Your task to perform on an android device: delete a single message in the gmail app Image 0: 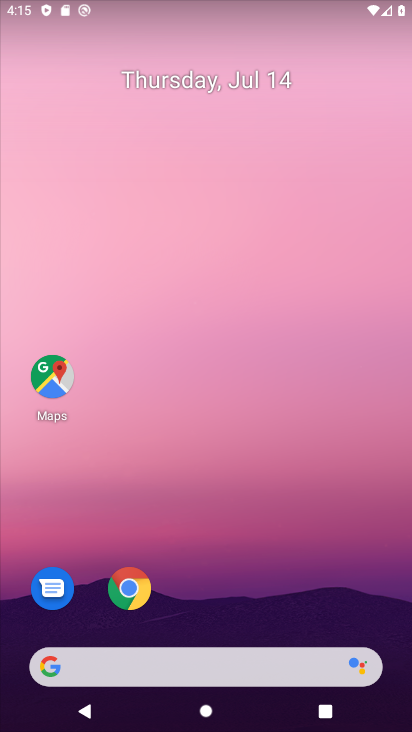
Step 0: drag from (118, 441) to (165, 286)
Your task to perform on an android device: delete a single message in the gmail app Image 1: 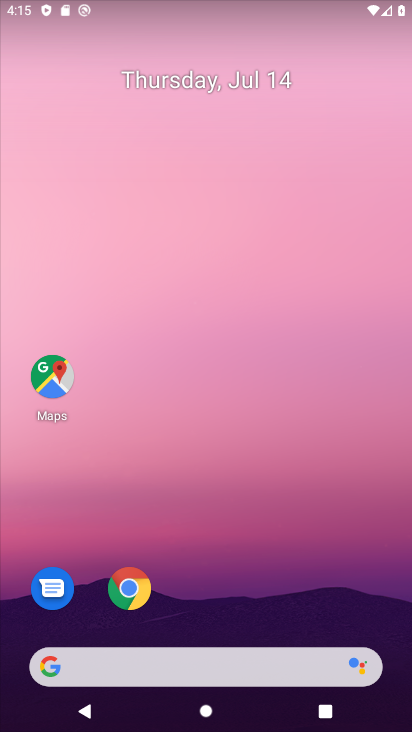
Step 1: click (262, 127)
Your task to perform on an android device: delete a single message in the gmail app Image 2: 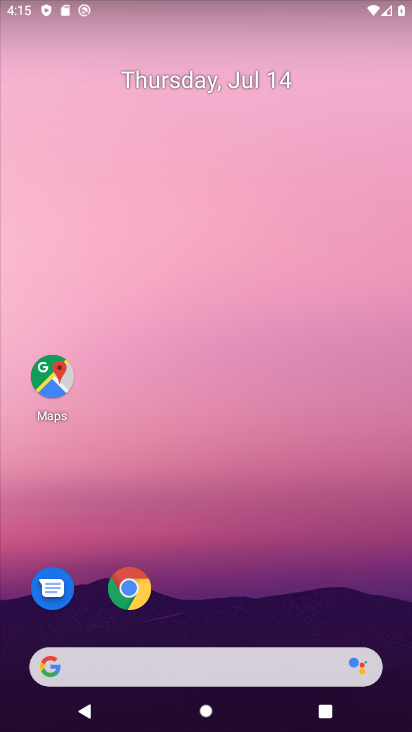
Step 2: click (216, 136)
Your task to perform on an android device: delete a single message in the gmail app Image 3: 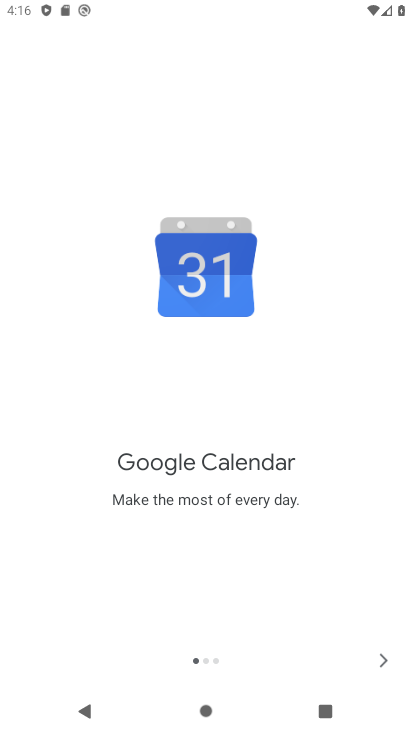
Step 3: click (380, 664)
Your task to perform on an android device: delete a single message in the gmail app Image 4: 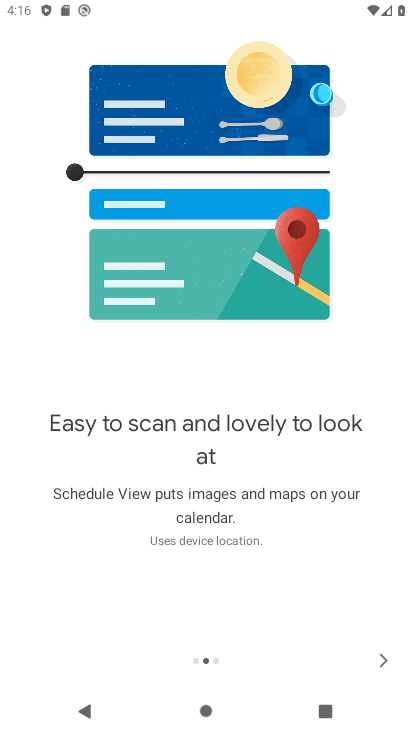
Step 4: click (385, 658)
Your task to perform on an android device: delete a single message in the gmail app Image 5: 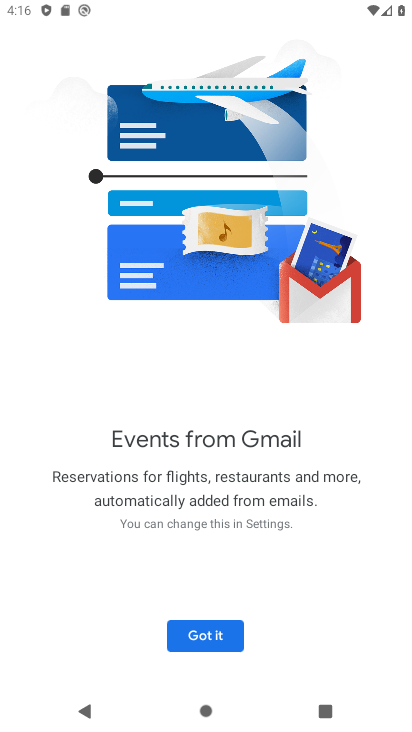
Step 5: click (220, 632)
Your task to perform on an android device: delete a single message in the gmail app Image 6: 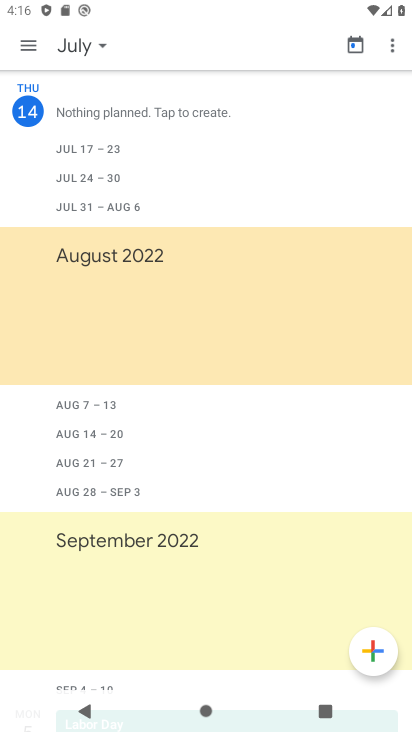
Step 6: press home button
Your task to perform on an android device: delete a single message in the gmail app Image 7: 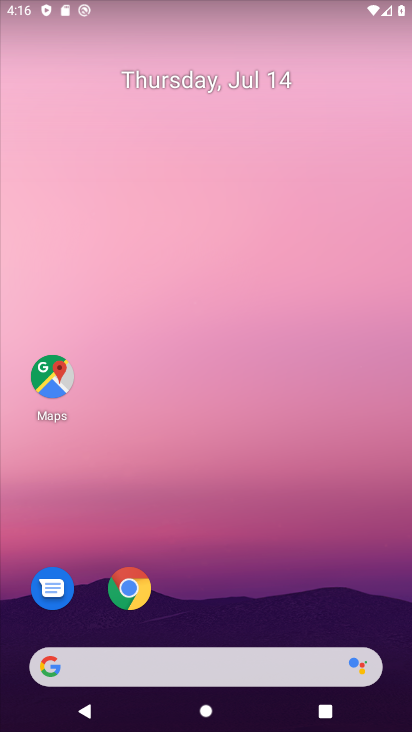
Step 7: drag from (17, 697) to (214, 132)
Your task to perform on an android device: delete a single message in the gmail app Image 8: 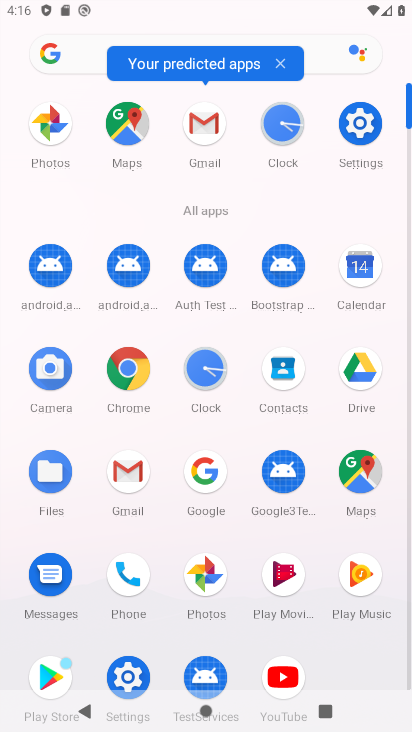
Step 8: click (134, 493)
Your task to perform on an android device: delete a single message in the gmail app Image 9: 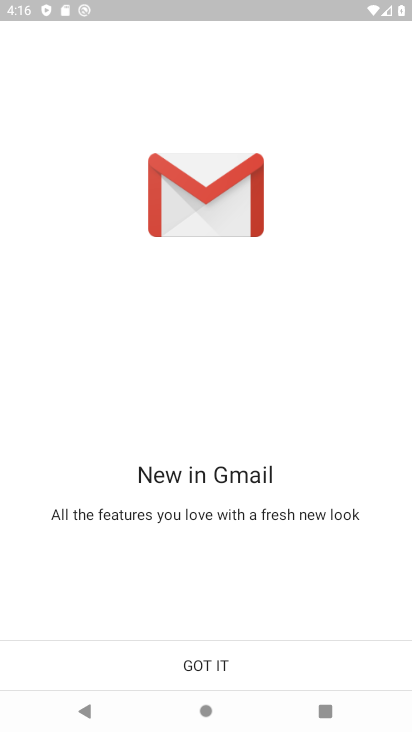
Step 9: click (184, 661)
Your task to perform on an android device: delete a single message in the gmail app Image 10: 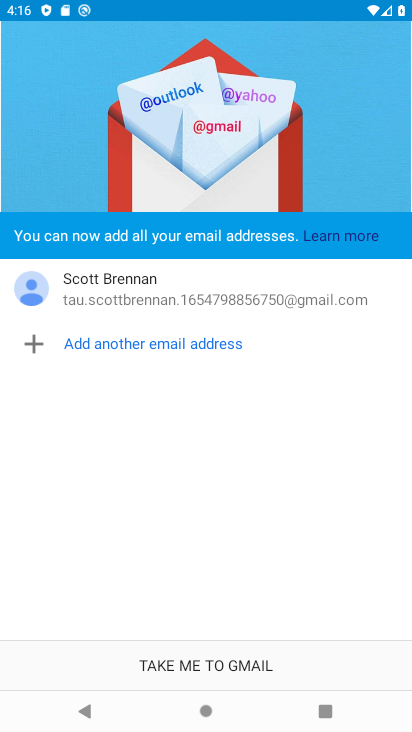
Step 10: click (179, 660)
Your task to perform on an android device: delete a single message in the gmail app Image 11: 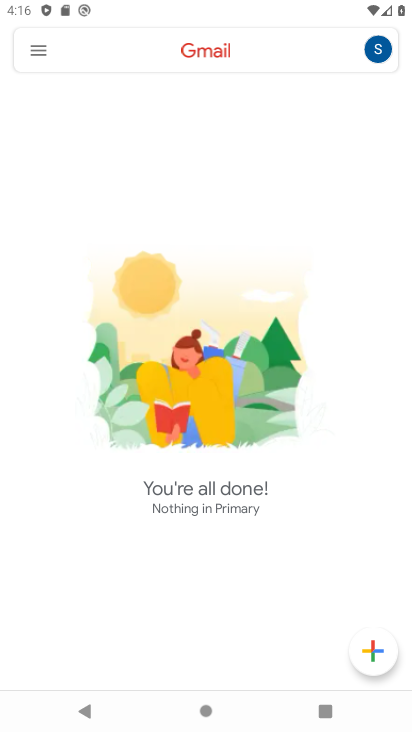
Step 11: click (32, 43)
Your task to perform on an android device: delete a single message in the gmail app Image 12: 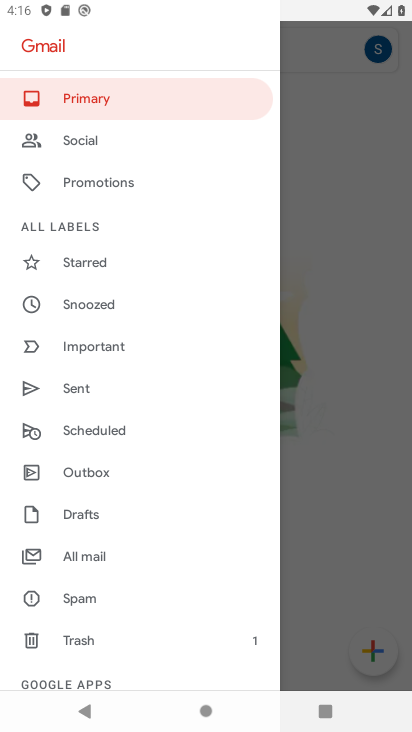
Step 12: click (118, 94)
Your task to perform on an android device: delete a single message in the gmail app Image 13: 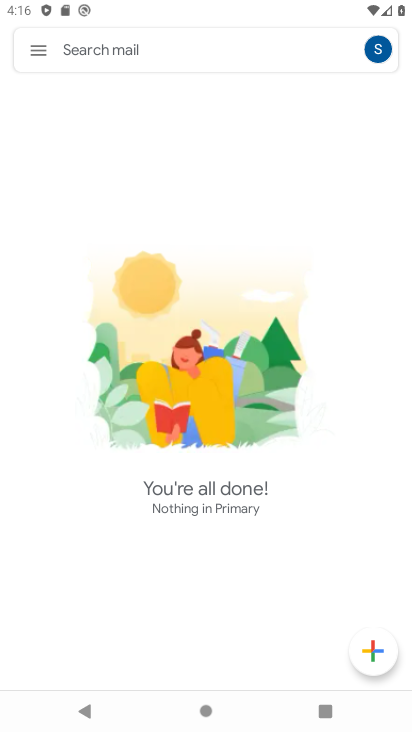
Step 13: task complete